Your task to perform on an android device: Go to Maps Image 0: 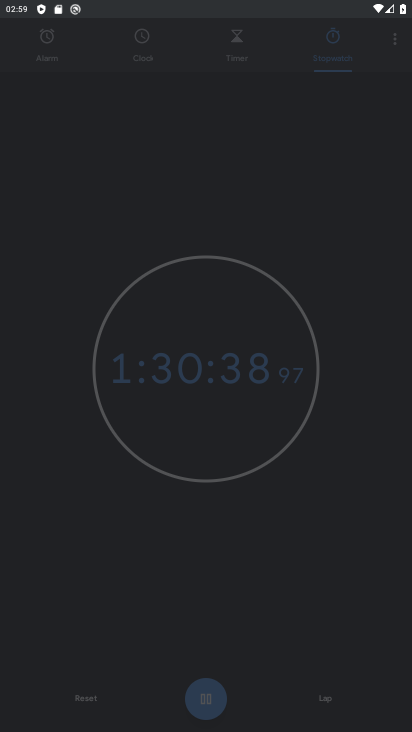
Step 0: press back button
Your task to perform on an android device: Go to Maps Image 1: 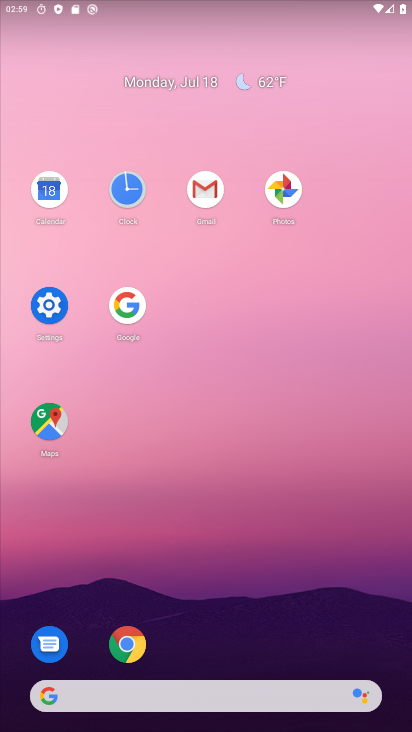
Step 1: click (58, 425)
Your task to perform on an android device: Go to Maps Image 2: 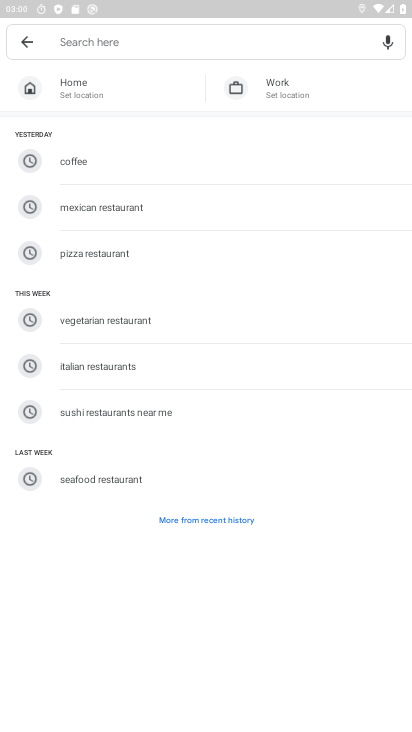
Step 2: task complete